Your task to perform on an android device: toggle notifications settings in the gmail app Image 0: 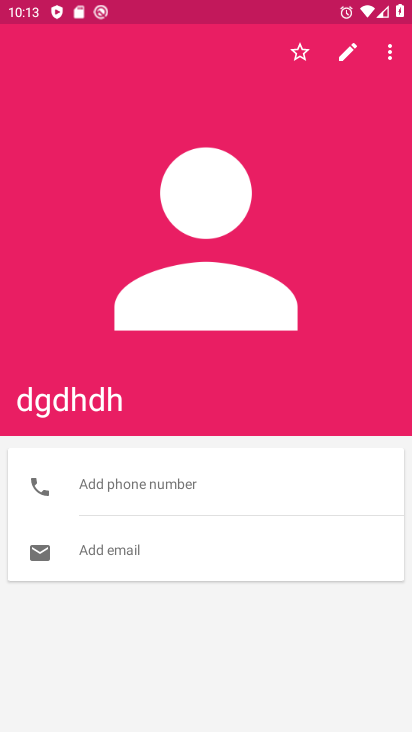
Step 0: press home button
Your task to perform on an android device: toggle notifications settings in the gmail app Image 1: 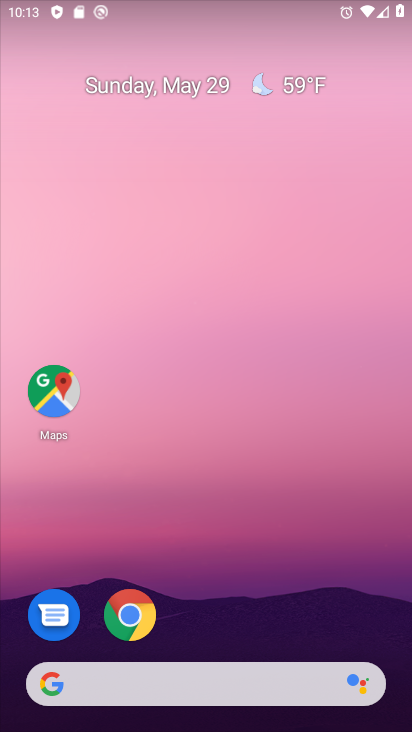
Step 1: drag from (235, 251) to (253, 2)
Your task to perform on an android device: toggle notifications settings in the gmail app Image 2: 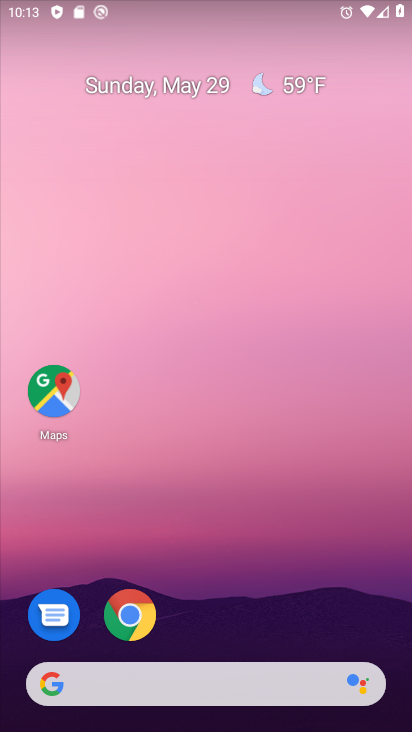
Step 2: drag from (236, 591) to (239, 1)
Your task to perform on an android device: toggle notifications settings in the gmail app Image 3: 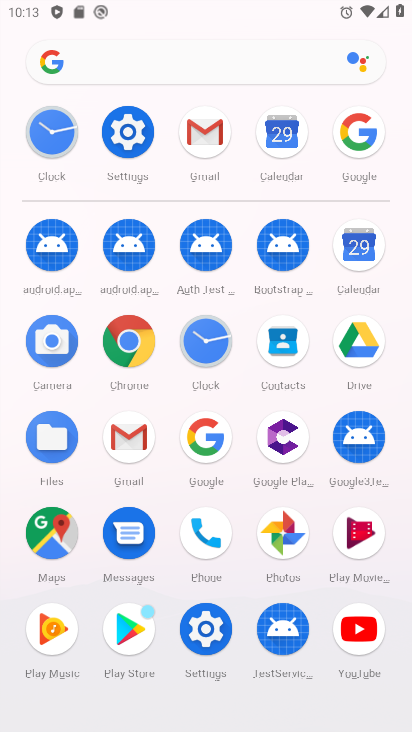
Step 3: click (202, 125)
Your task to perform on an android device: toggle notifications settings in the gmail app Image 4: 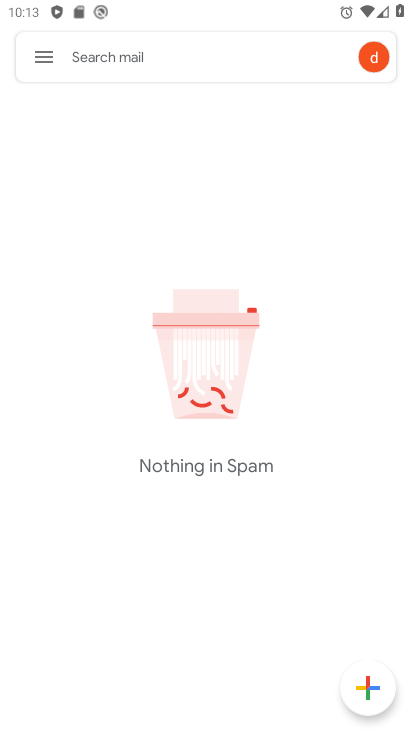
Step 4: click (42, 55)
Your task to perform on an android device: toggle notifications settings in the gmail app Image 5: 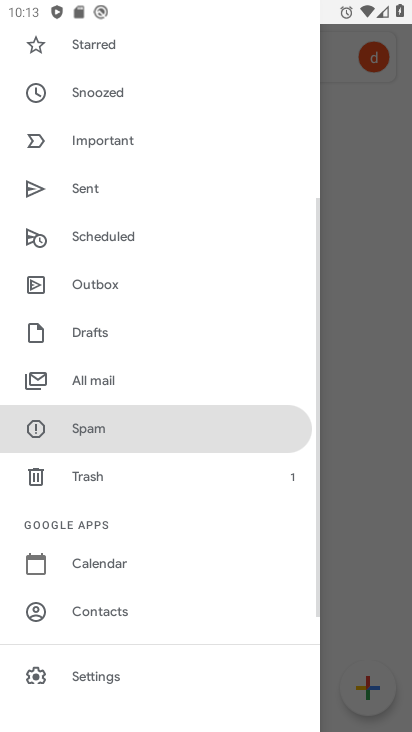
Step 5: drag from (98, 608) to (125, 349)
Your task to perform on an android device: toggle notifications settings in the gmail app Image 6: 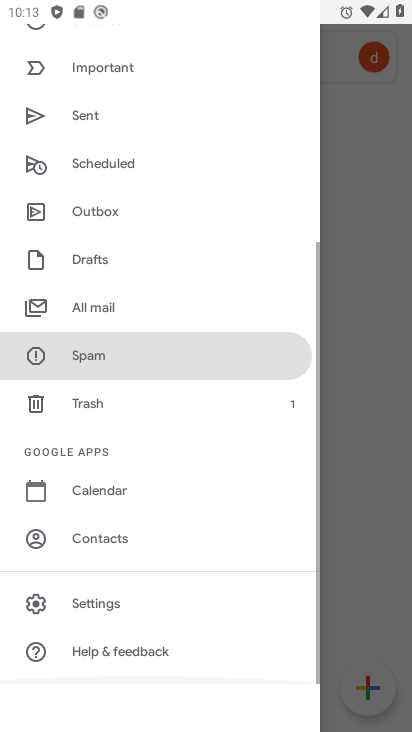
Step 6: click (110, 612)
Your task to perform on an android device: toggle notifications settings in the gmail app Image 7: 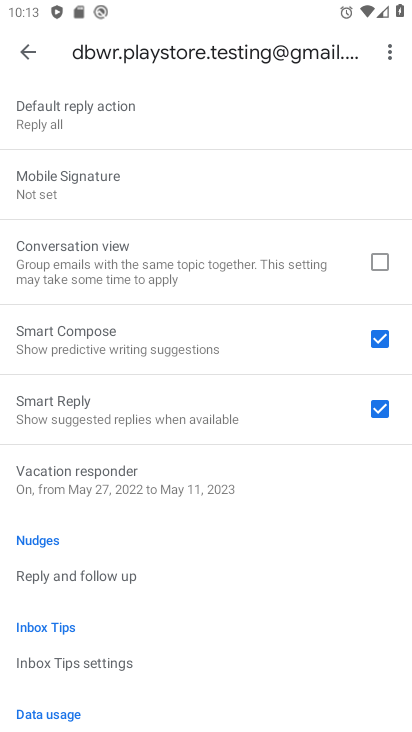
Step 7: drag from (128, 612) to (186, 677)
Your task to perform on an android device: toggle notifications settings in the gmail app Image 8: 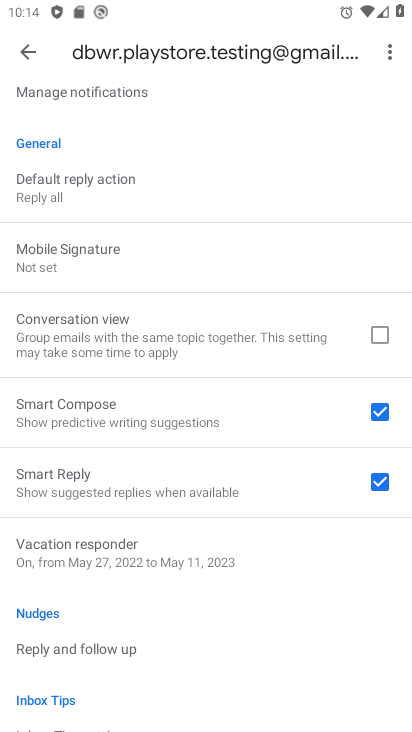
Step 8: drag from (99, 151) to (161, 629)
Your task to perform on an android device: toggle notifications settings in the gmail app Image 9: 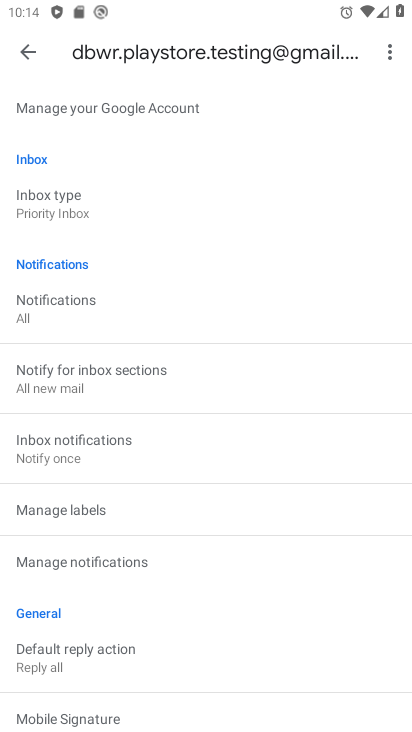
Step 9: click (43, 306)
Your task to perform on an android device: toggle notifications settings in the gmail app Image 10: 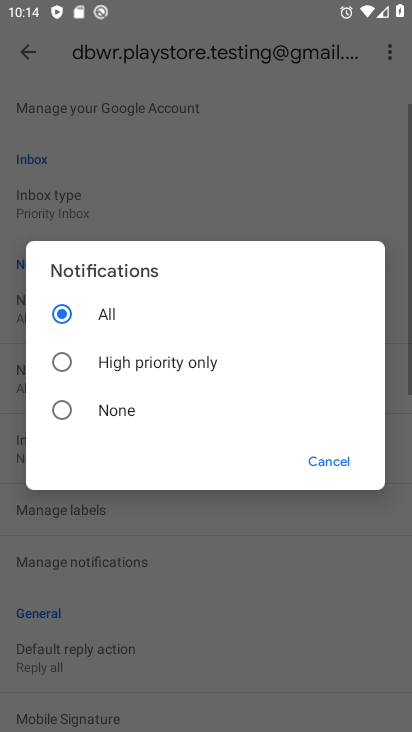
Step 10: click (59, 413)
Your task to perform on an android device: toggle notifications settings in the gmail app Image 11: 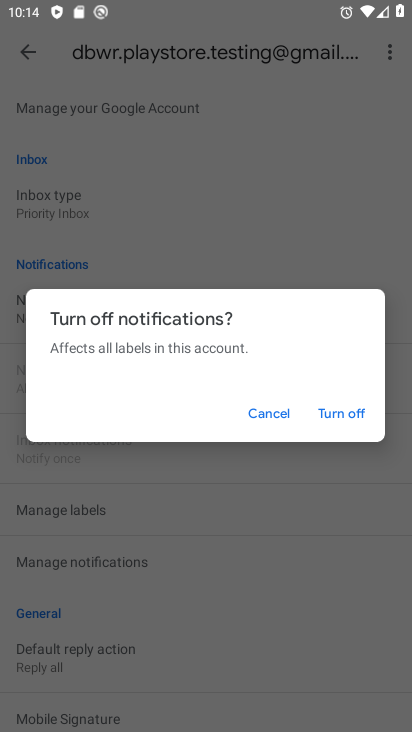
Step 11: click (279, 406)
Your task to perform on an android device: toggle notifications settings in the gmail app Image 12: 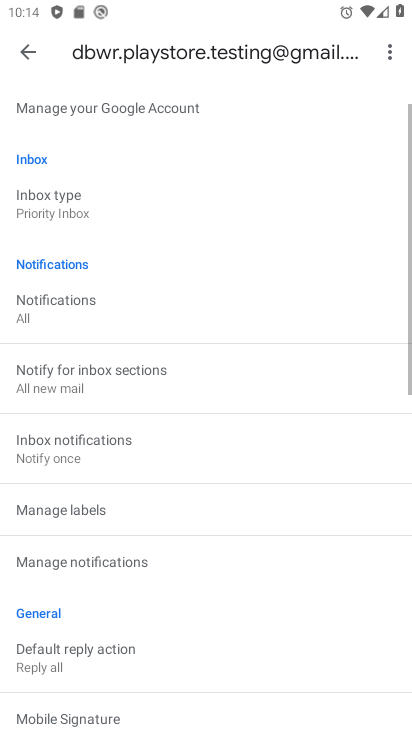
Step 12: task complete